Your task to perform on an android device: check google app version Image 0: 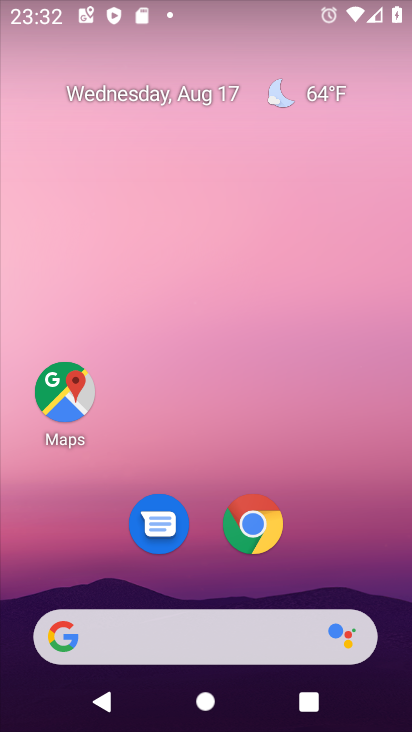
Step 0: click (232, 630)
Your task to perform on an android device: check google app version Image 1: 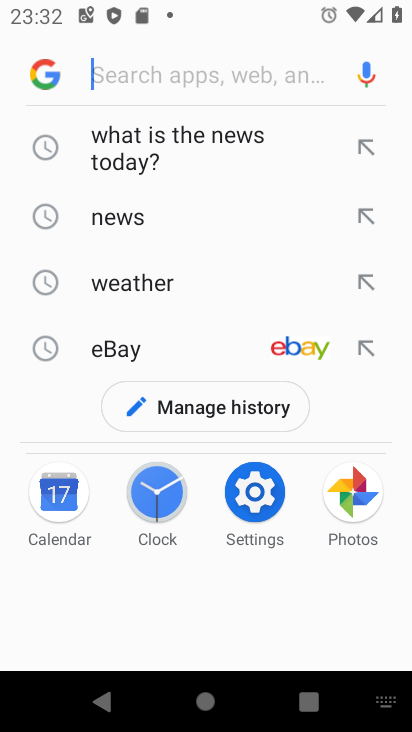
Step 1: click (50, 71)
Your task to perform on an android device: check google app version Image 2: 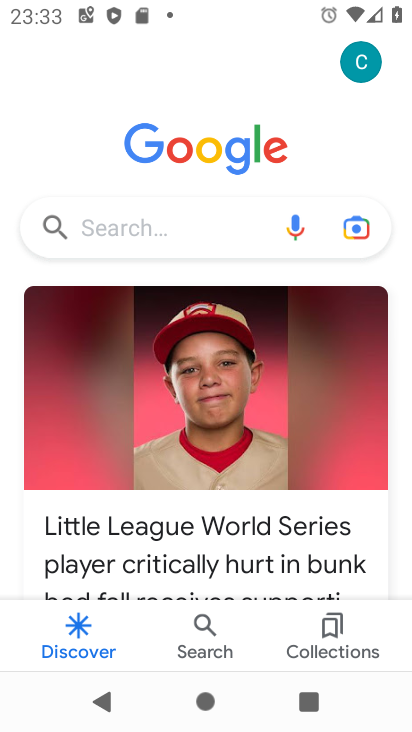
Step 2: click (361, 66)
Your task to perform on an android device: check google app version Image 3: 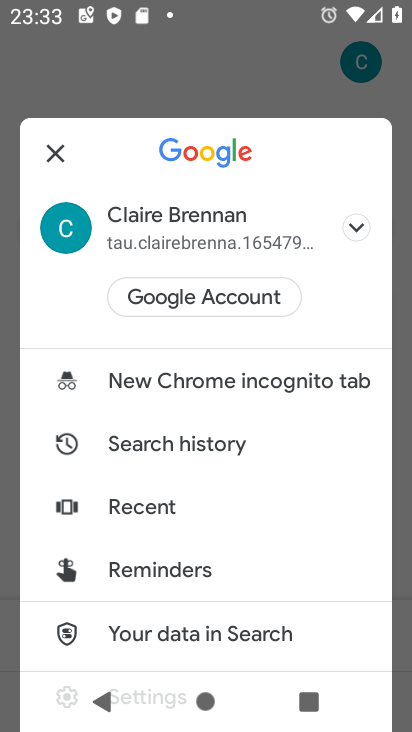
Step 3: drag from (244, 515) to (273, 167)
Your task to perform on an android device: check google app version Image 4: 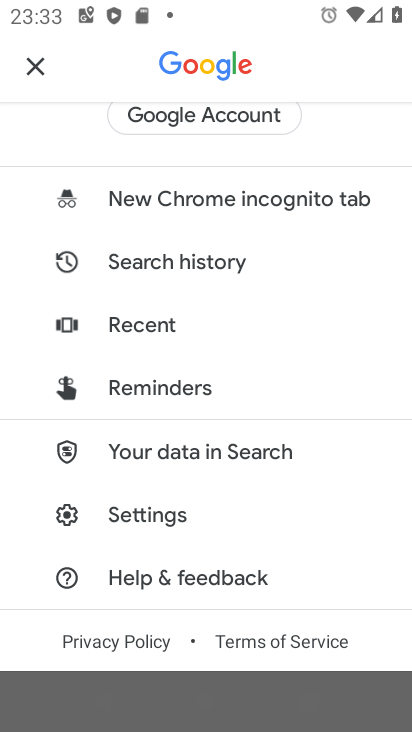
Step 4: click (166, 513)
Your task to perform on an android device: check google app version Image 5: 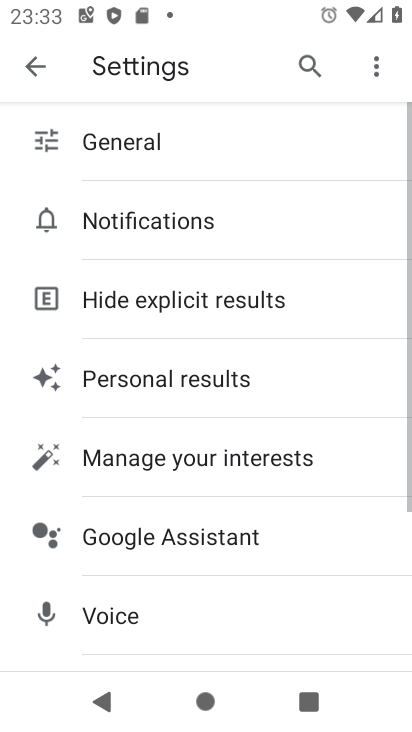
Step 5: drag from (235, 538) to (258, 11)
Your task to perform on an android device: check google app version Image 6: 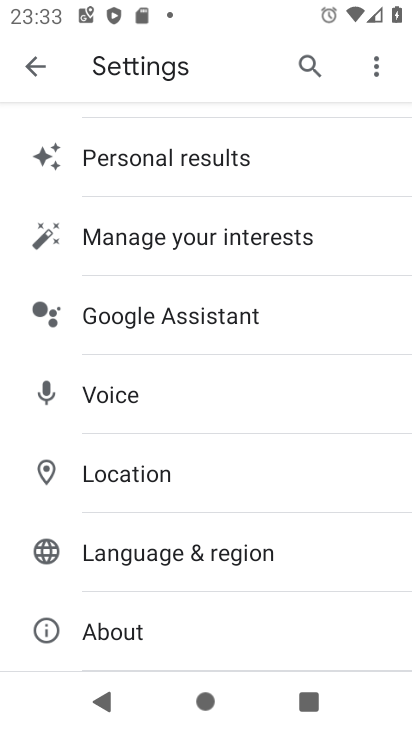
Step 6: click (104, 629)
Your task to perform on an android device: check google app version Image 7: 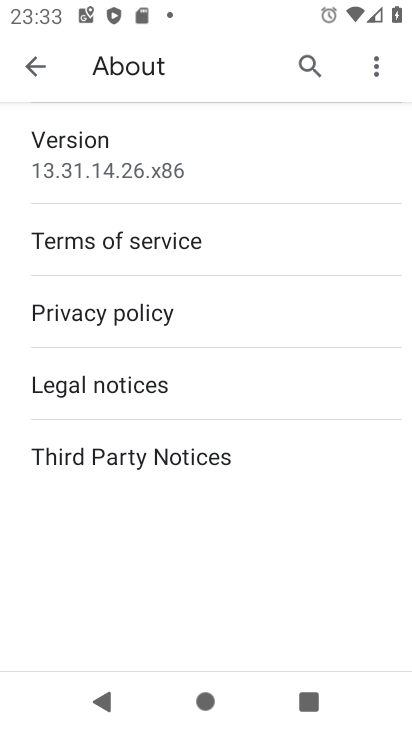
Step 7: task complete